Your task to perform on an android device: Empty the shopping cart on bestbuy.com. Add "logitech g910" to the cart on bestbuy.com Image 0: 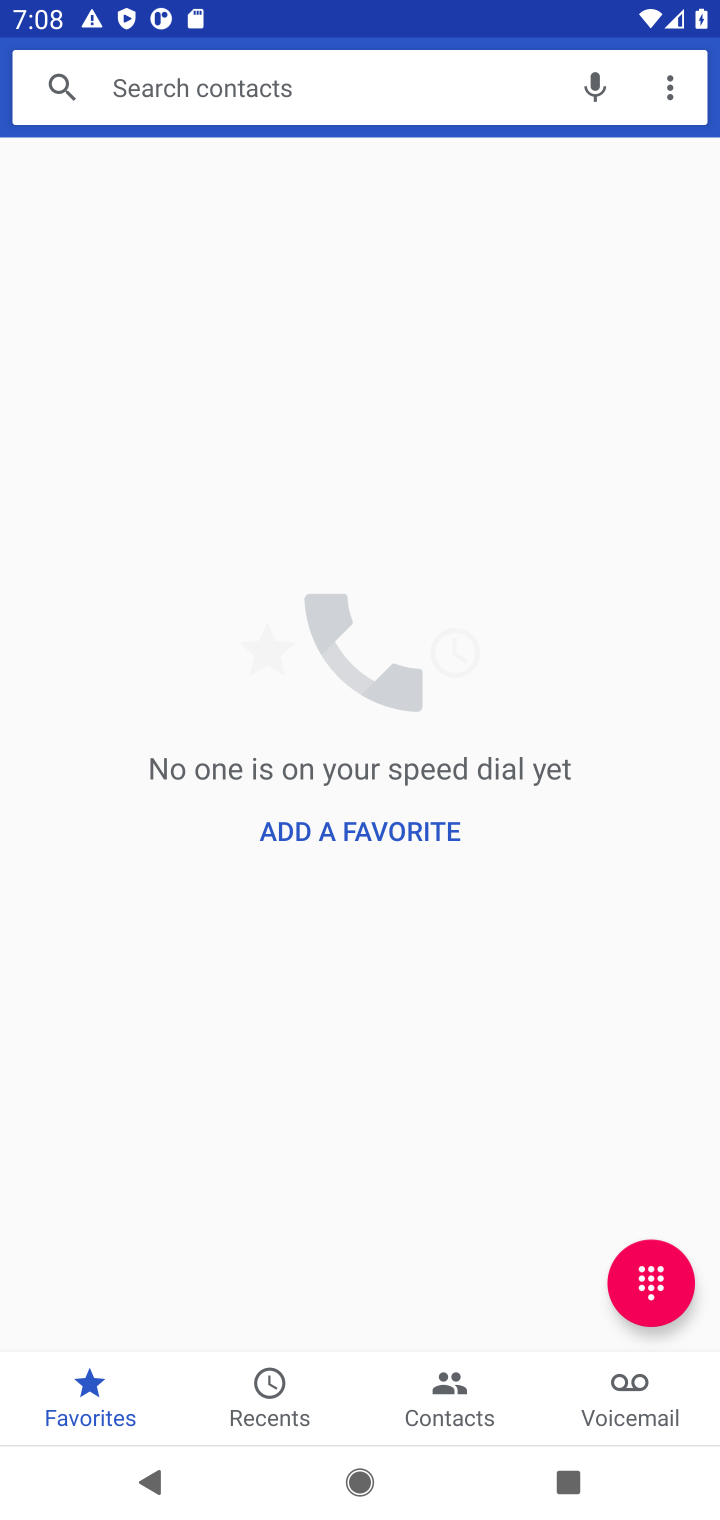
Step 0: press home button
Your task to perform on an android device: Empty the shopping cart on bestbuy.com. Add "logitech g910" to the cart on bestbuy.com Image 1: 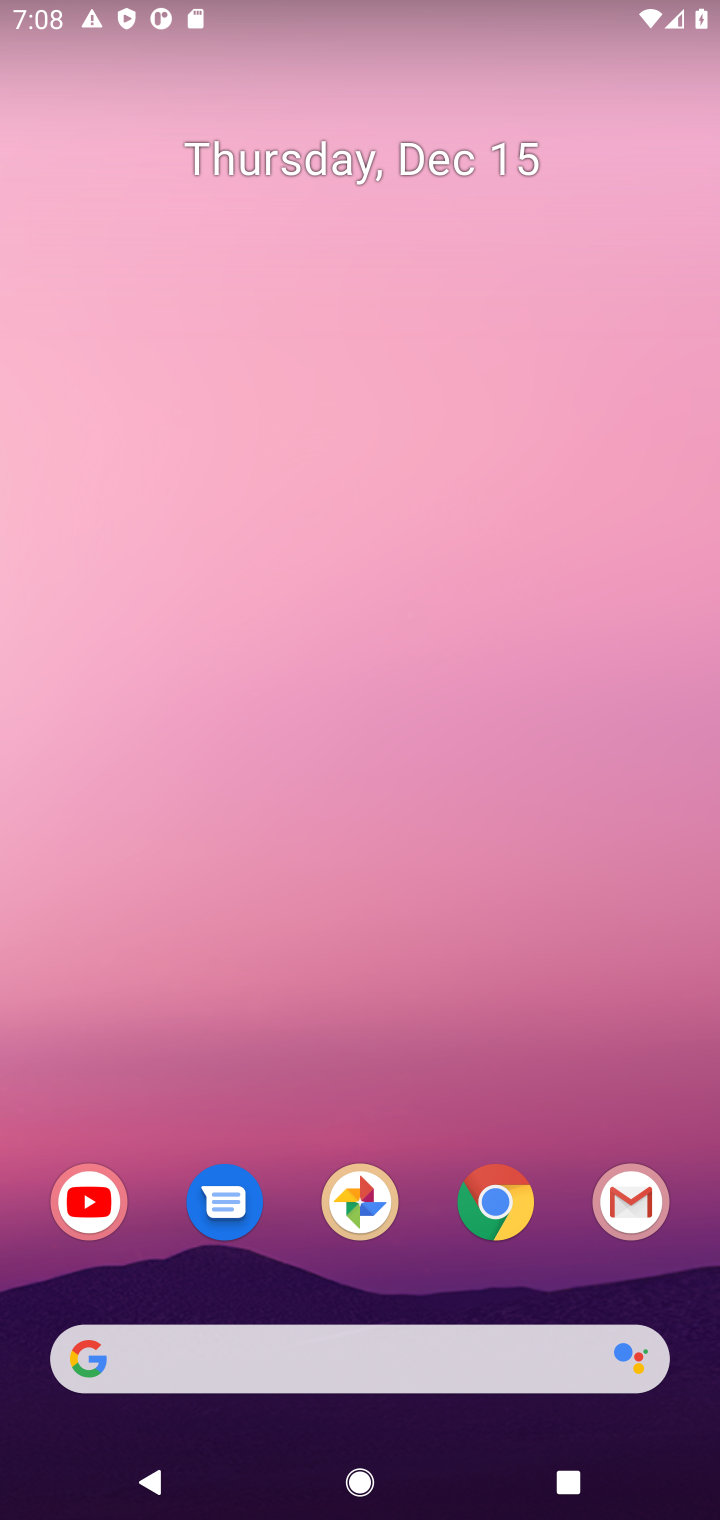
Step 1: click (479, 1210)
Your task to perform on an android device: Empty the shopping cart on bestbuy.com. Add "logitech g910" to the cart on bestbuy.com Image 2: 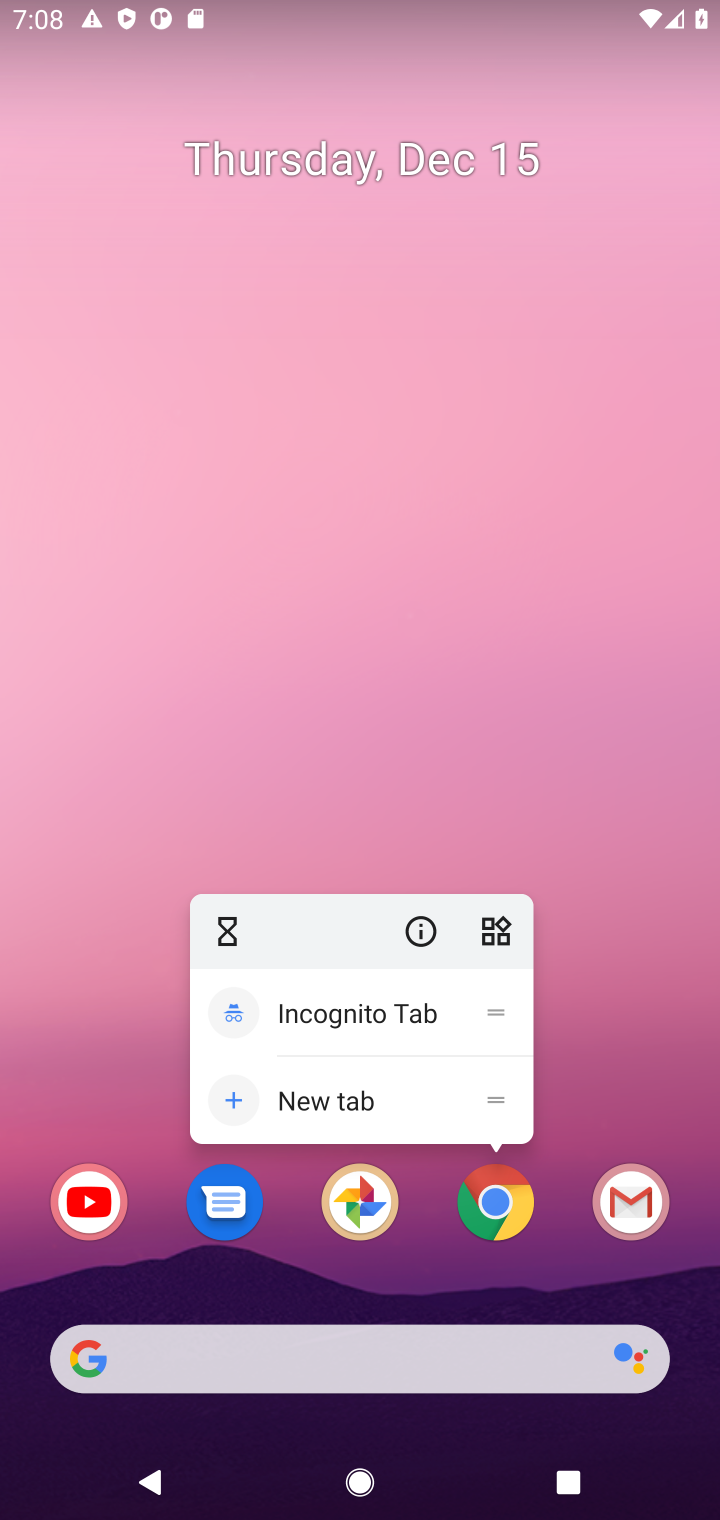
Step 2: click (491, 1220)
Your task to perform on an android device: Empty the shopping cart on bestbuy.com. Add "logitech g910" to the cart on bestbuy.com Image 3: 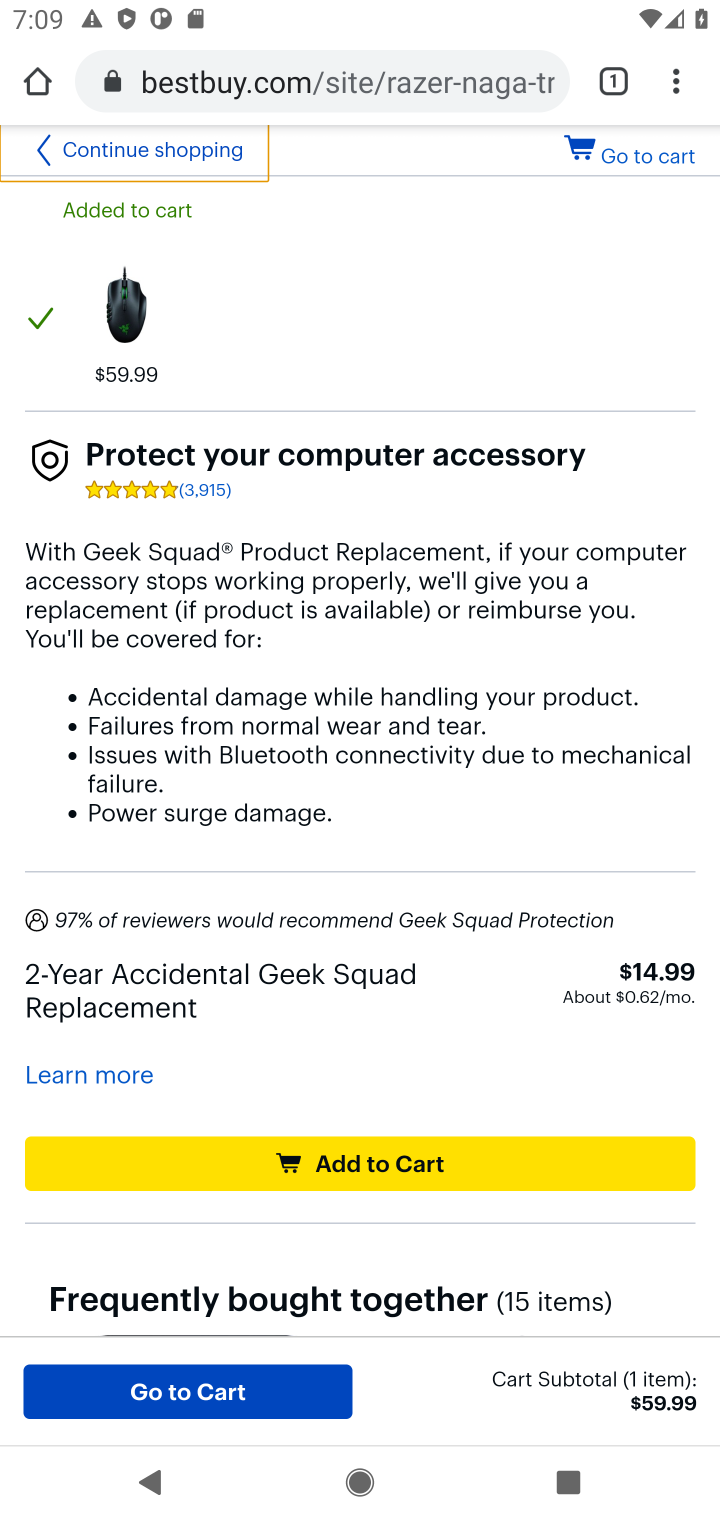
Step 3: press back button
Your task to perform on an android device: Empty the shopping cart on bestbuy.com. Add "logitech g910" to the cart on bestbuy.com Image 4: 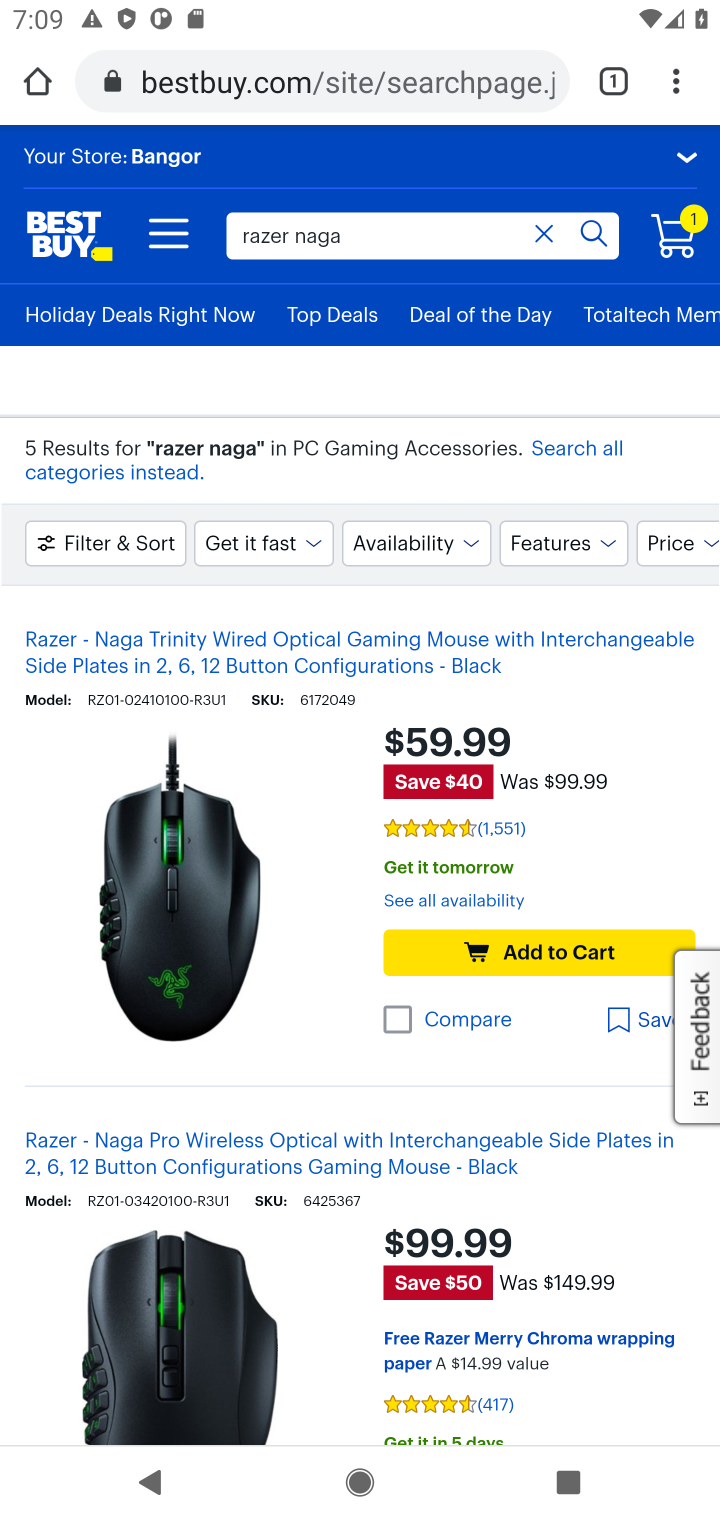
Step 4: click (666, 245)
Your task to perform on an android device: Empty the shopping cart on bestbuy.com. Add "logitech g910" to the cart on bestbuy.com Image 5: 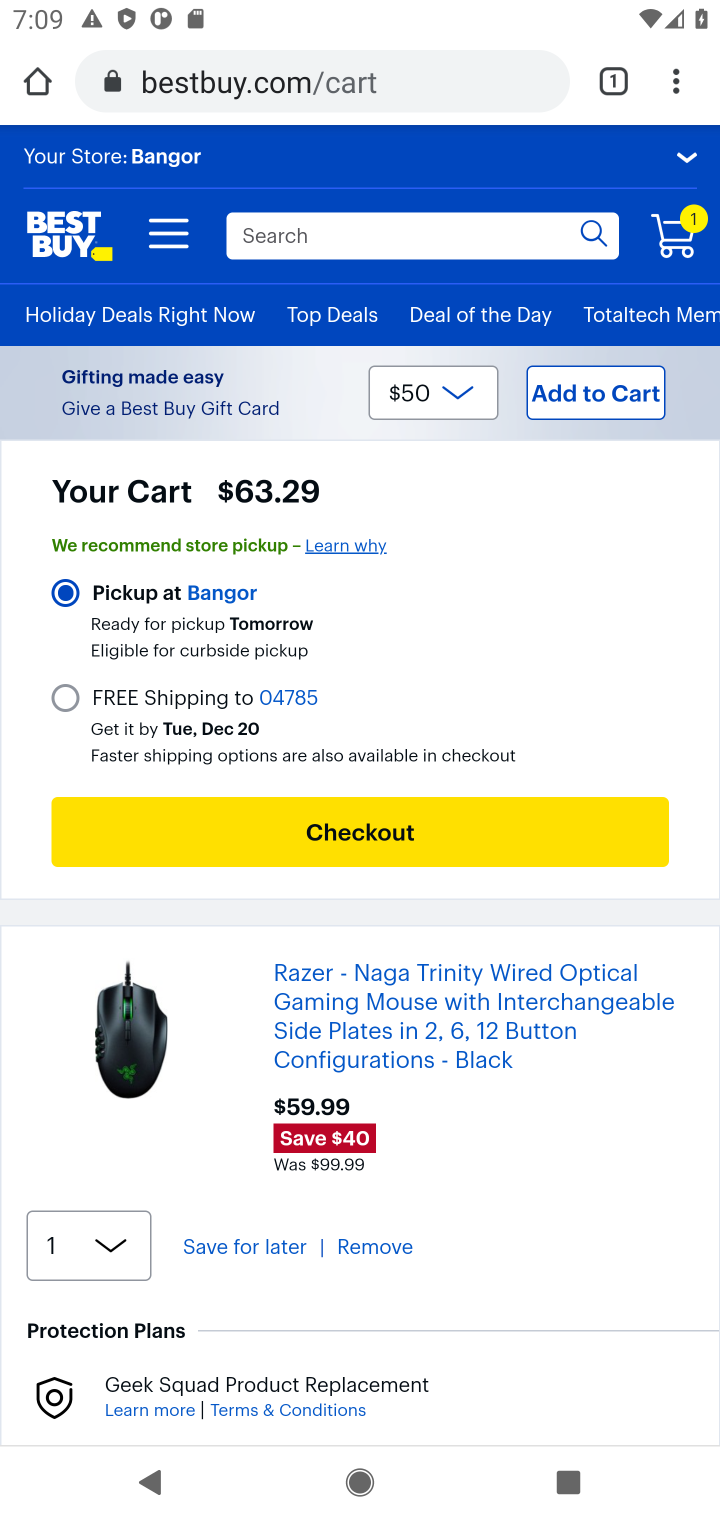
Step 5: click (376, 1254)
Your task to perform on an android device: Empty the shopping cart on bestbuy.com. Add "logitech g910" to the cart on bestbuy.com Image 6: 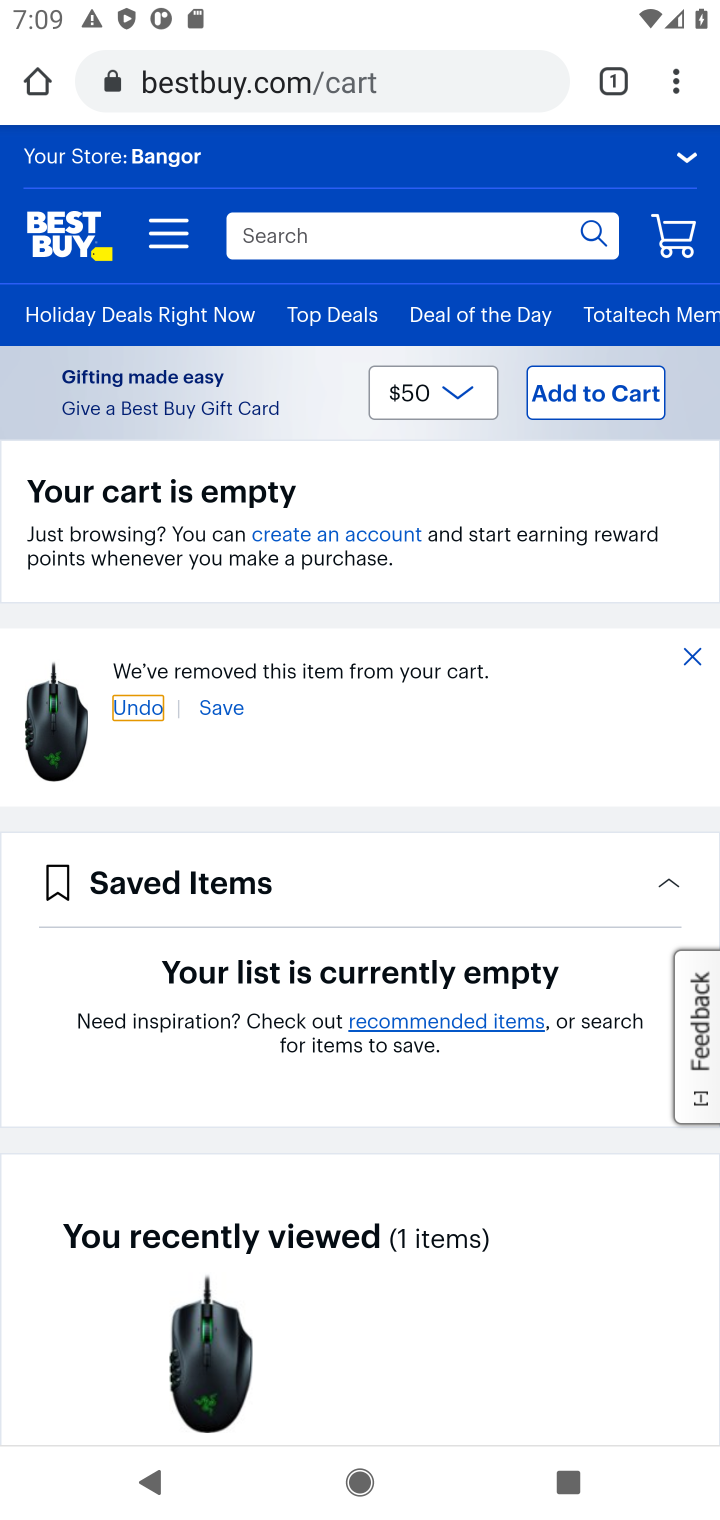
Step 6: click (318, 226)
Your task to perform on an android device: Empty the shopping cart on bestbuy.com. Add "logitech g910" to the cart on bestbuy.com Image 7: 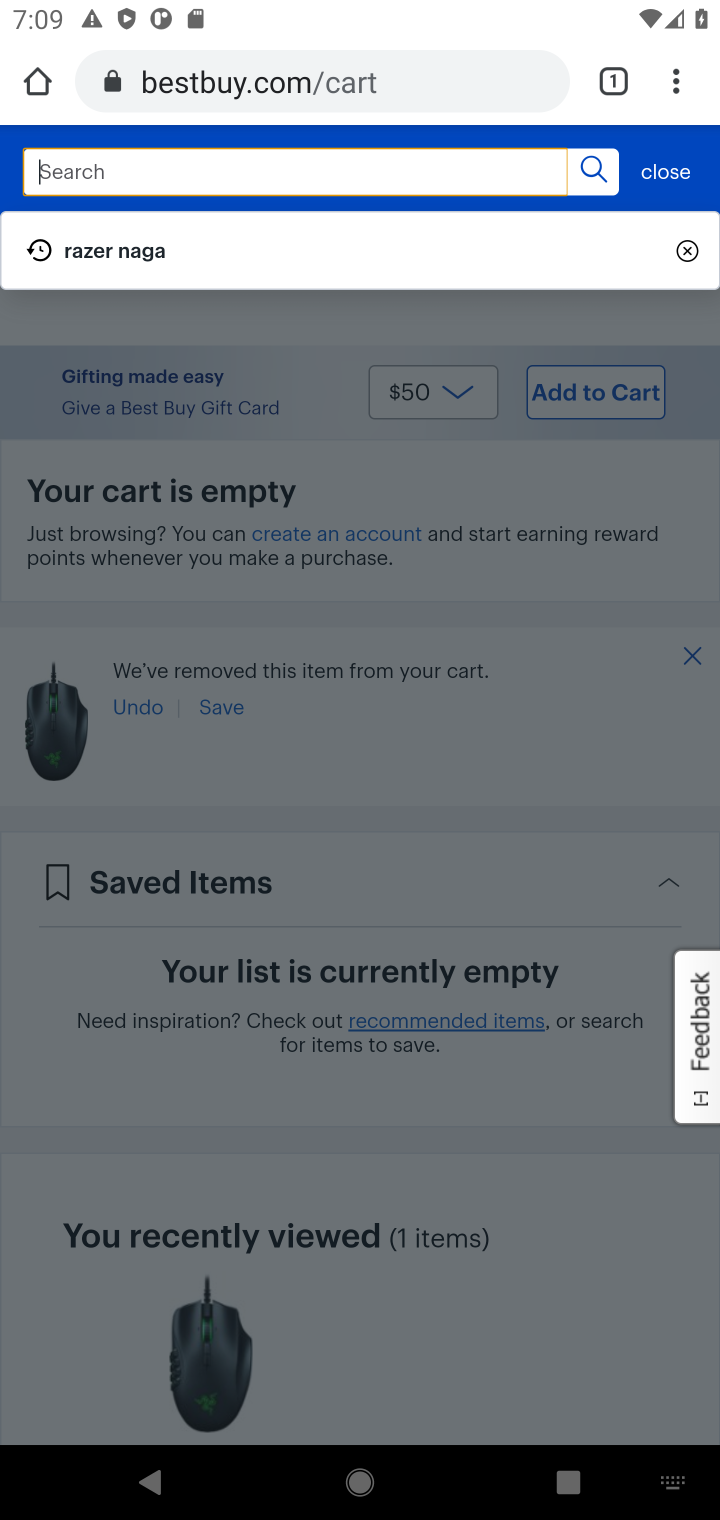
Step 7: type "logitech g910"
Your task to perform on an android device: Empty the shopping cart on bestbuy.com. Add "logitech g910" to the cart on bestbuy.com Image 8: 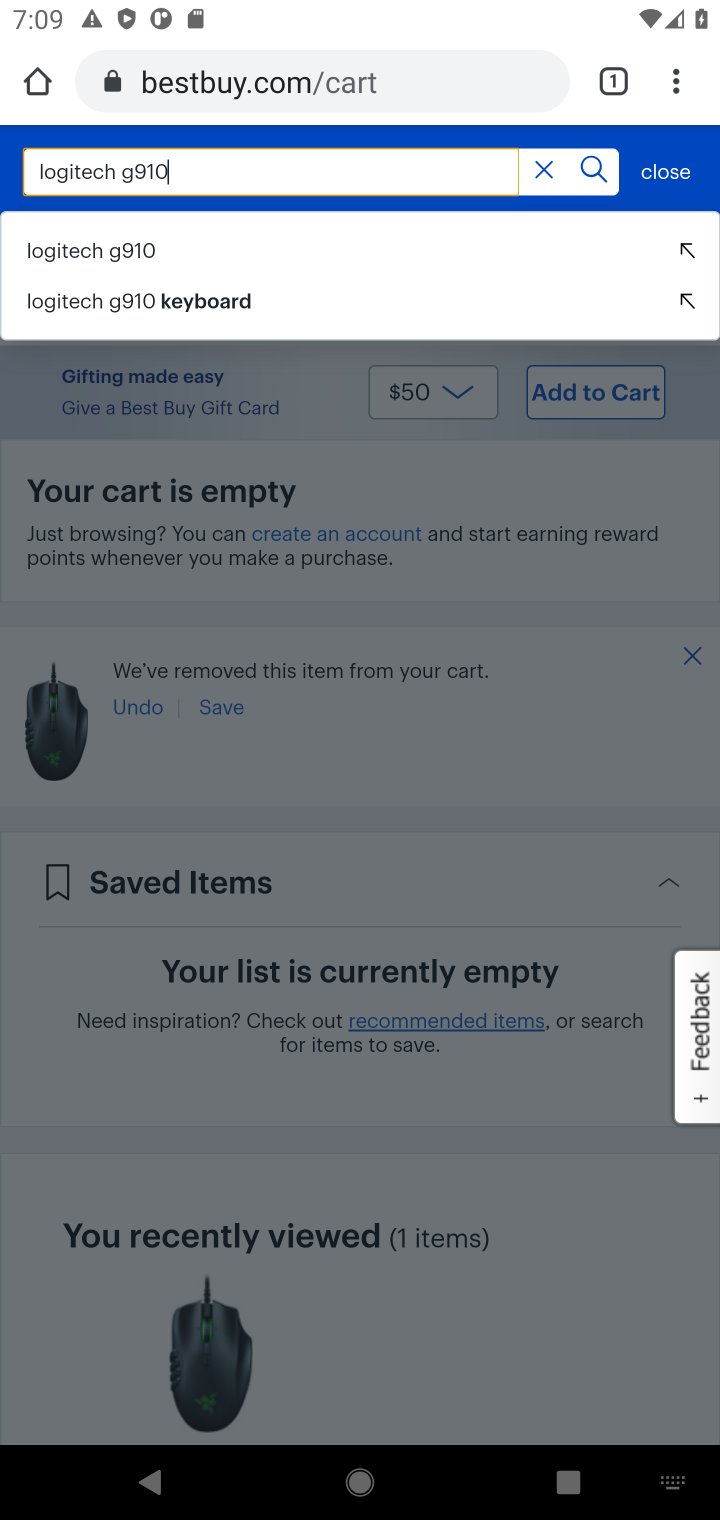
Step 8: click (122, 255)
Your task to perform on an android device: Empty the shopping cart on bestbuy.com. Add "logitech g910" to the cart on bestbuy.com Image 9: 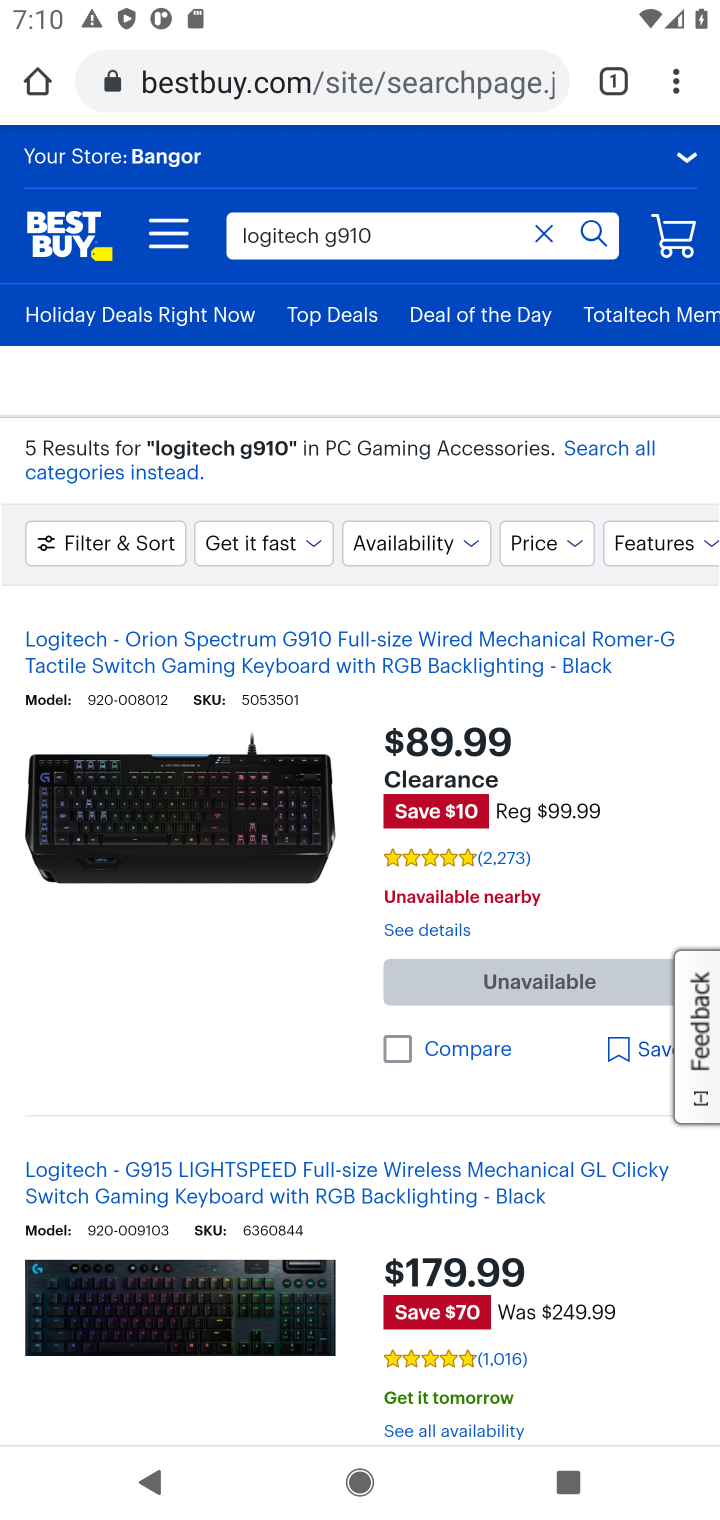
Step 9: task complete